Your task to perform on an android device: Open maps Image 0: 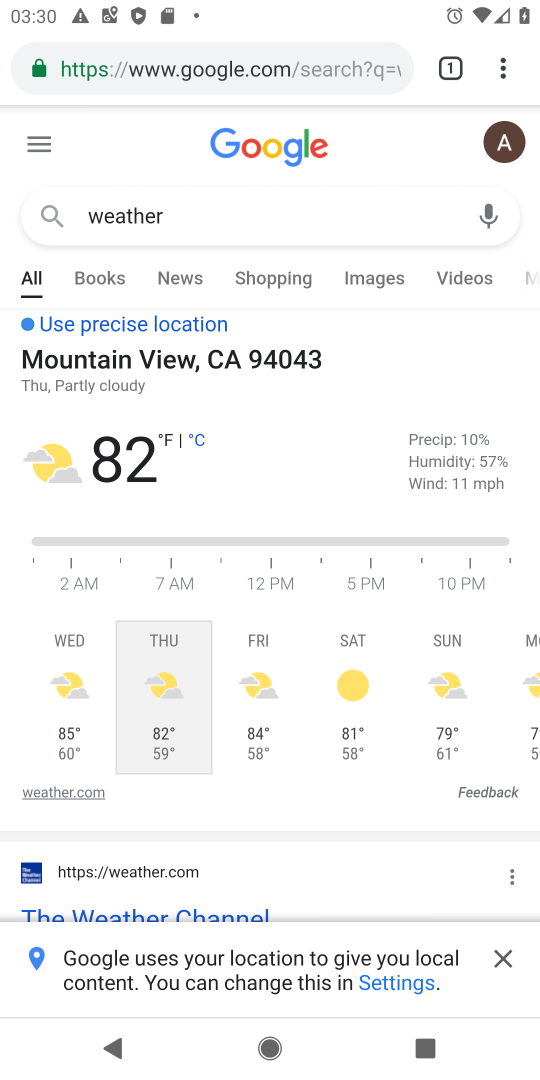
Step 0: press home button
Your task to perform on an android device: Open maps Image 1: 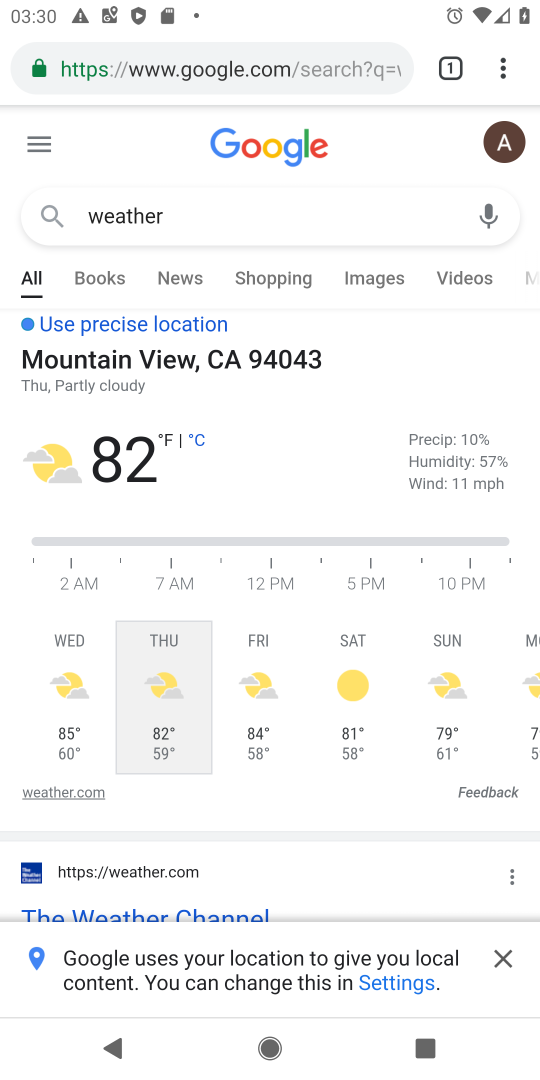
Step 1: press home button
Your task to perform on an android device: Open maps Image 2: 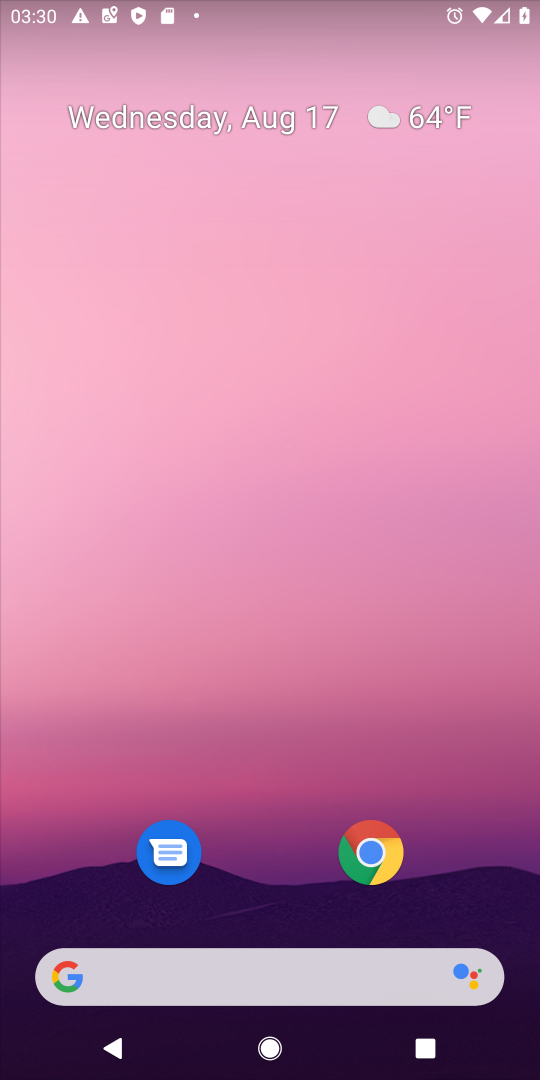
Step 2: drag from (242, 897) to (331, 201)
Your task to perform on an android device: Open maps Image 3: 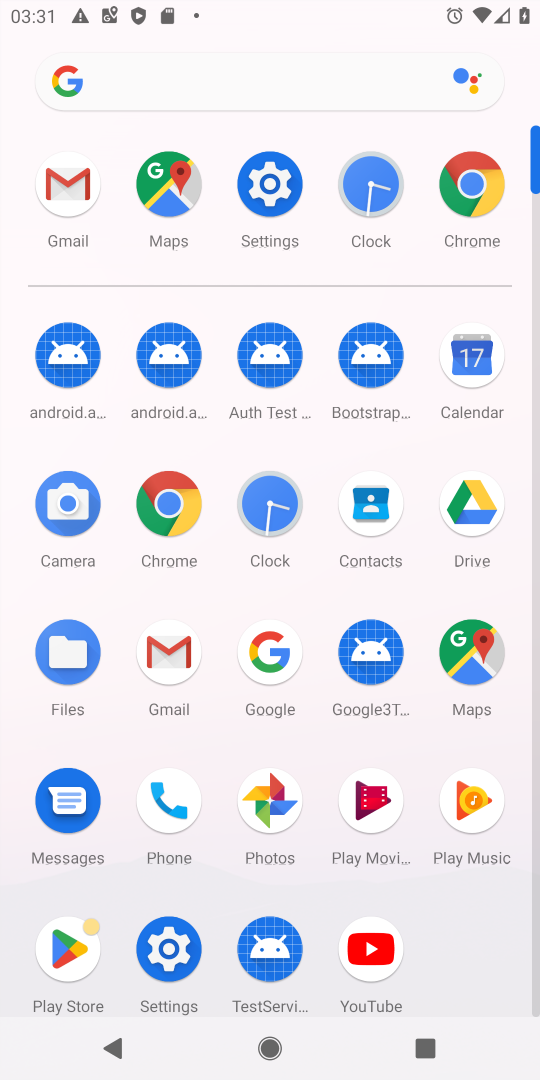
Step 3: click (468, 657)
Your task to perform on an android device: Open maps Image 4: 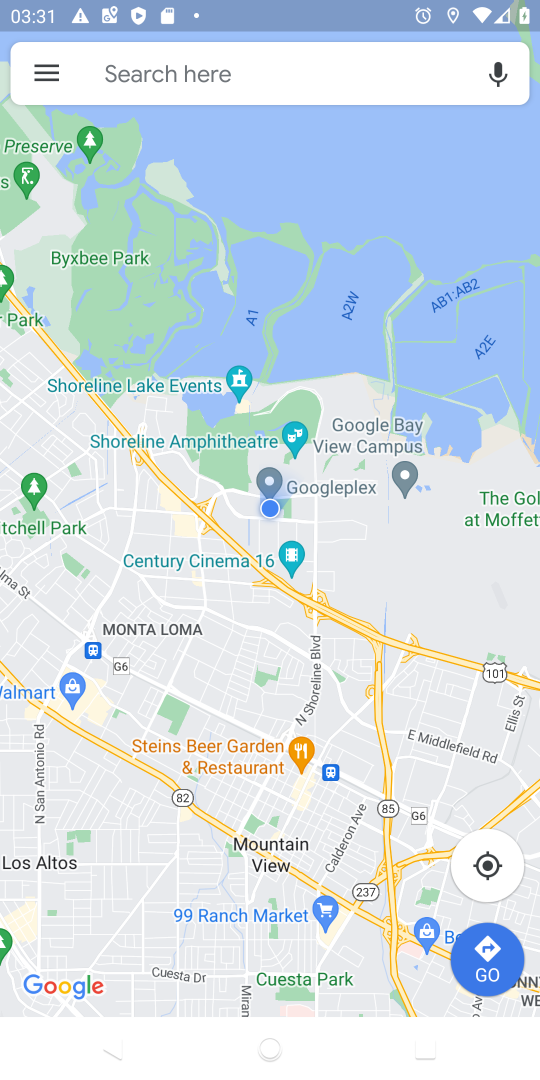
Step 4: task complete